Your task to perform on an android device: Add "usb-c to usb-b" to the cart on walmart.com, then select checkout. Image 0: 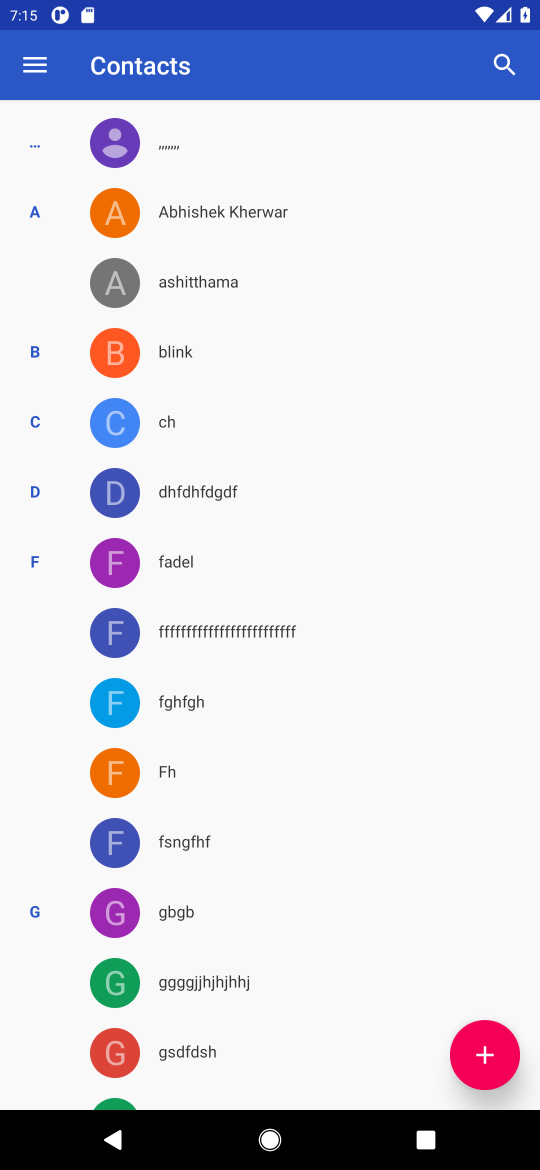
Step 0: press home button
Your task to perform on an android device: Add "usb-c to usb-b" to the cart on walmart.com, then select checkout. Image 1: 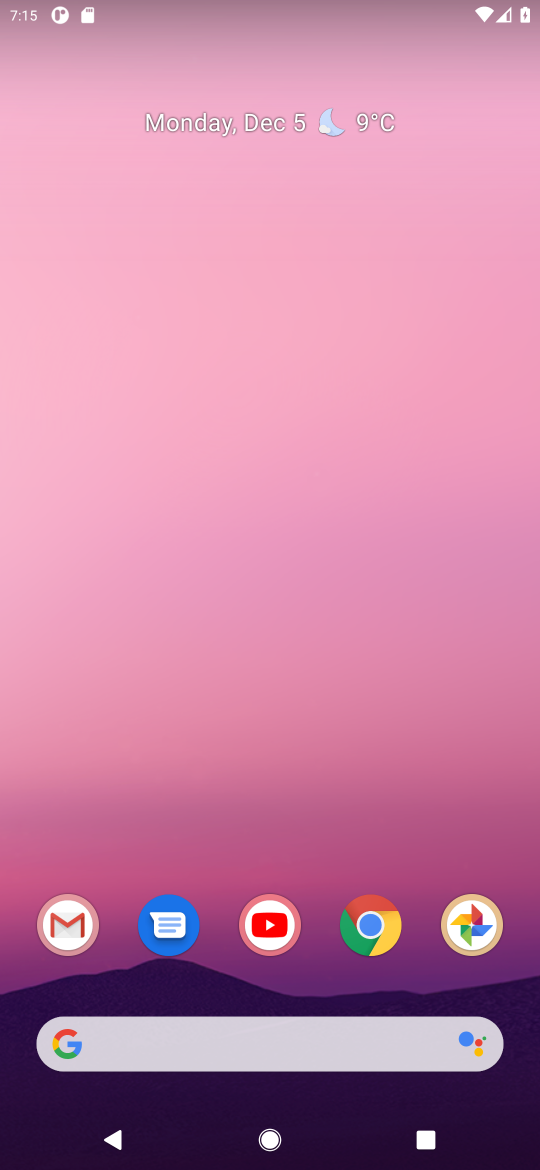
Step 1: click (379, 929)
Your task to perform on an android device: Add "usb-c to usb-b" to the cart on walmart.com, then select checkout. Image 2: 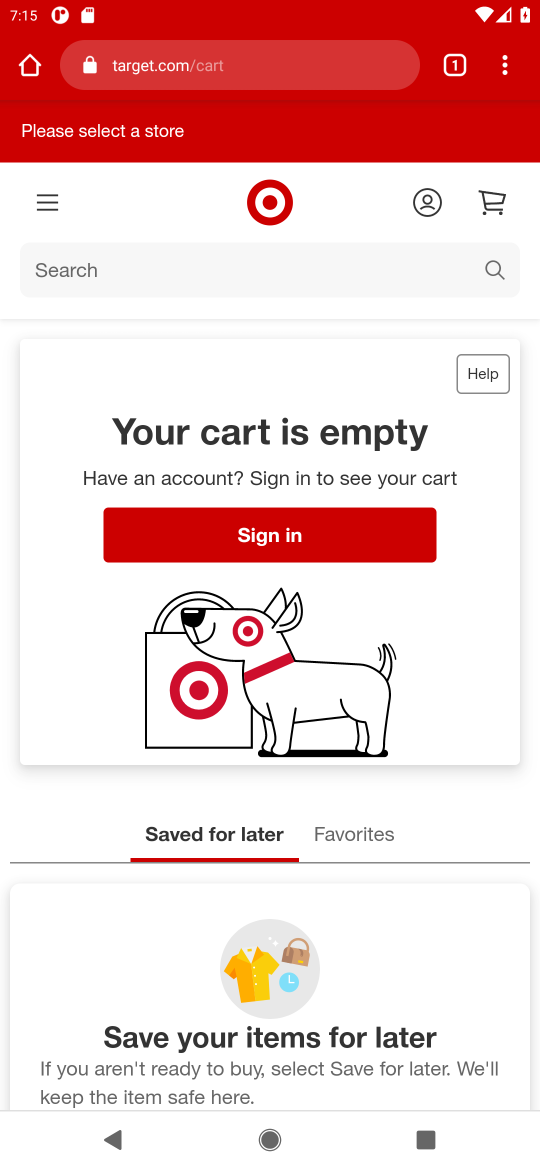
Step 2: click (171, 66)
Your task to perform on an android device: Add "usb-c to usb-b" to the cart on walmart.com, then select checkout. Image 3: 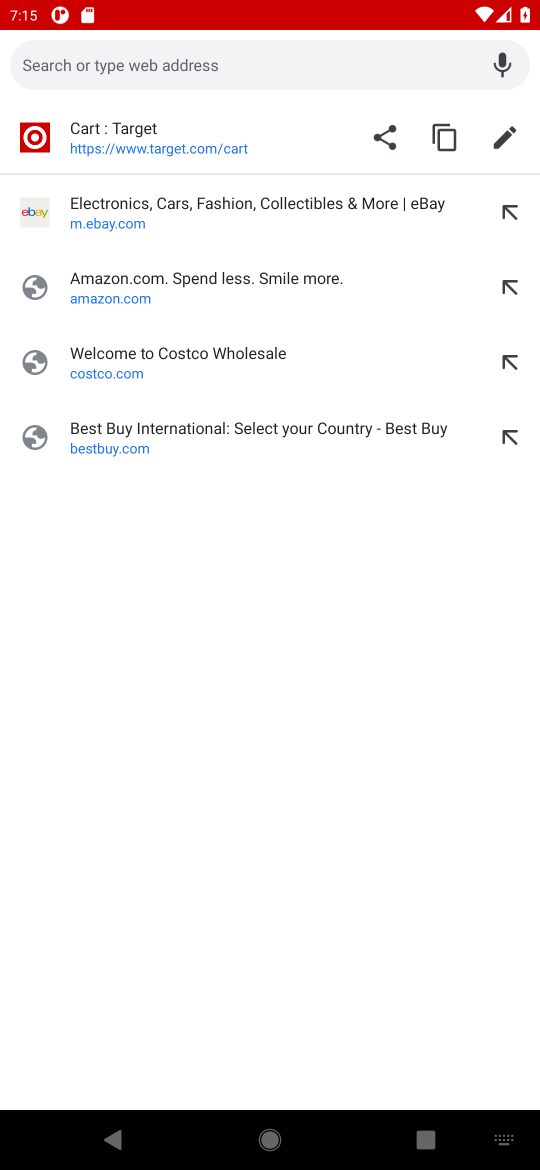
Step 3: type "walmart.com"
Your task to perform on an android device: Add "usb-c to usb-b" to the cart on walmart.com, then select checkout. Image 4: 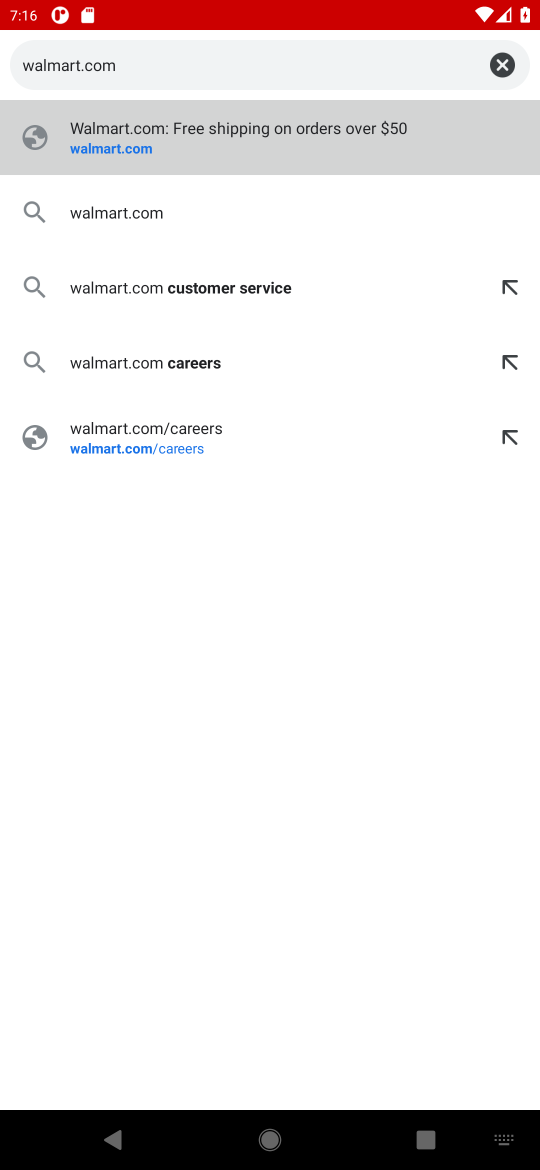
Step 4: click (104, 145)
Your task to perform on an android device: Add "usb-c to usb-b" to the cart on walmart.com, then select checkout. Image 5: 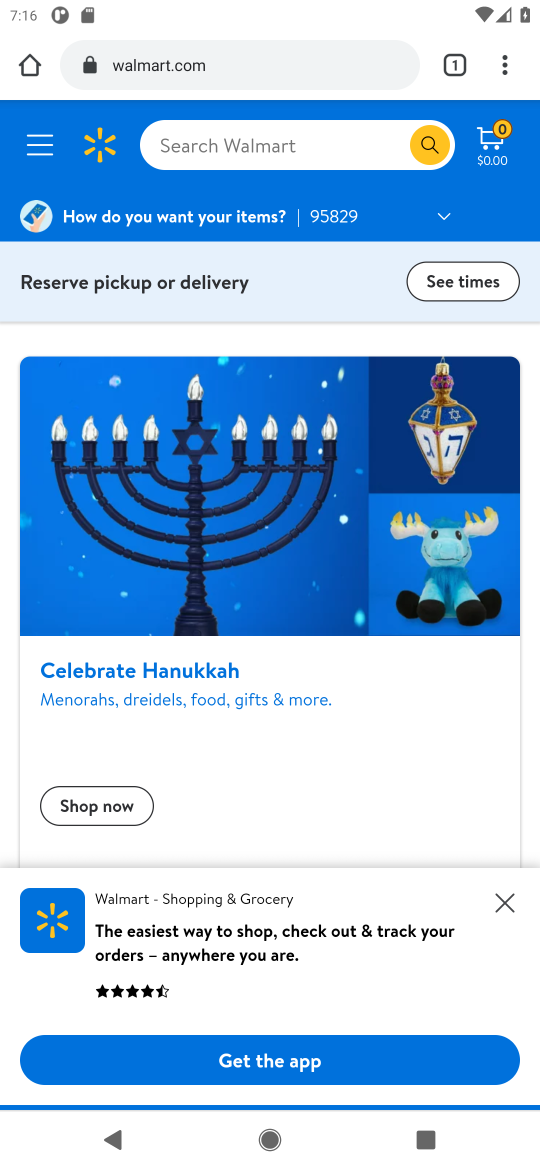
Step 5: click (221, 155)
Your task to perform on an android device: Add "usb-c to usb-b" to the cart on walmart.com, then select checkout. Image 6: 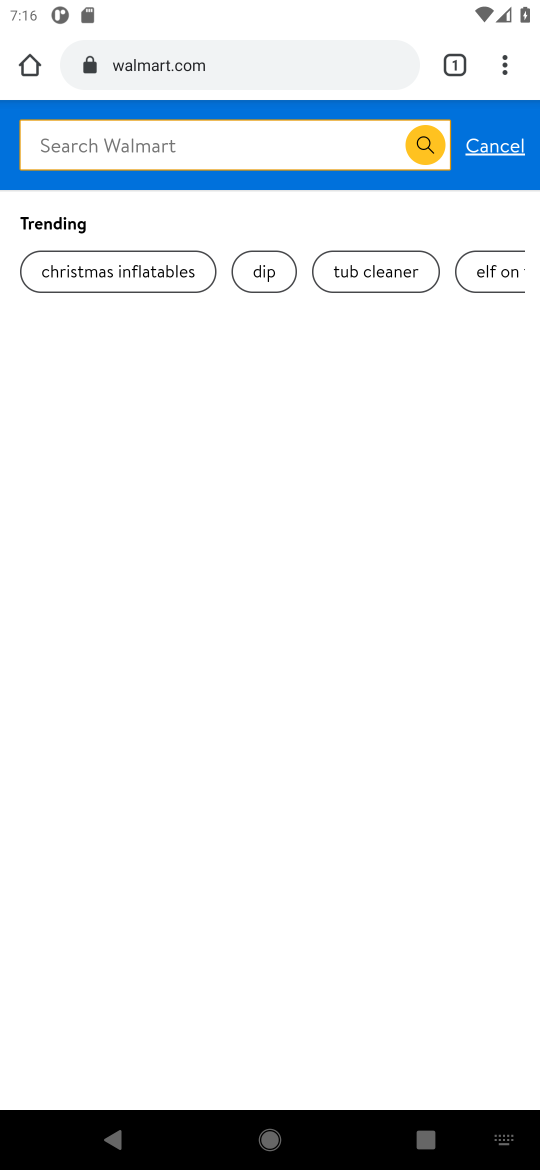
Step 6: type "usb-c to usb-b"
Your task to perform on an android device: Add "usb-c to usb-b" to the cart on walmart.com, then select checkout. Image 7: 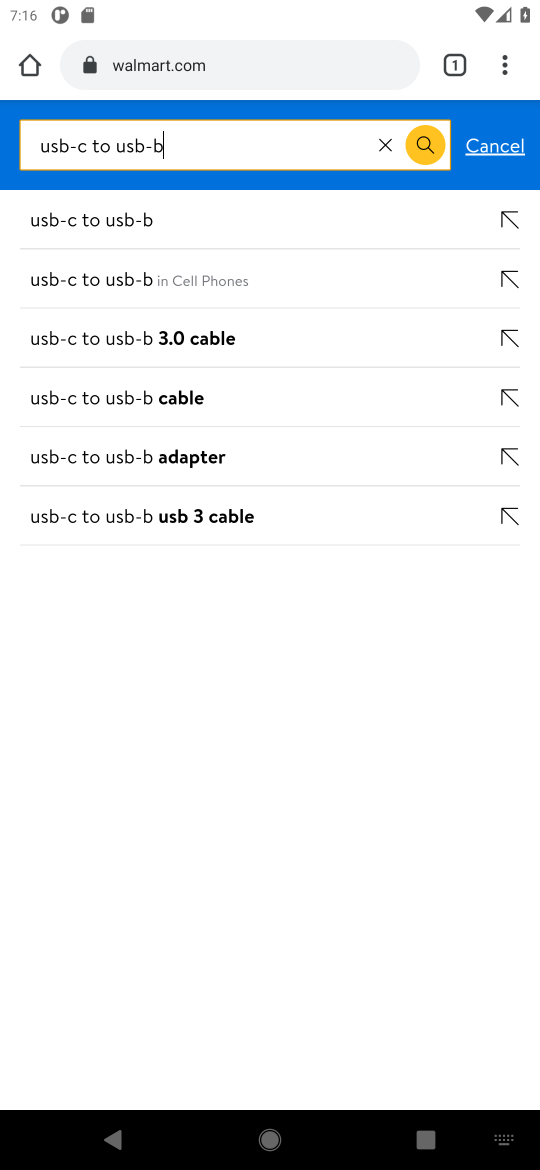
Step 7: click (110, 221)
Your task to perform on an android device: Add "usb-c to usb-b" to the cart on walmart.com, then select checkout. Image 8: 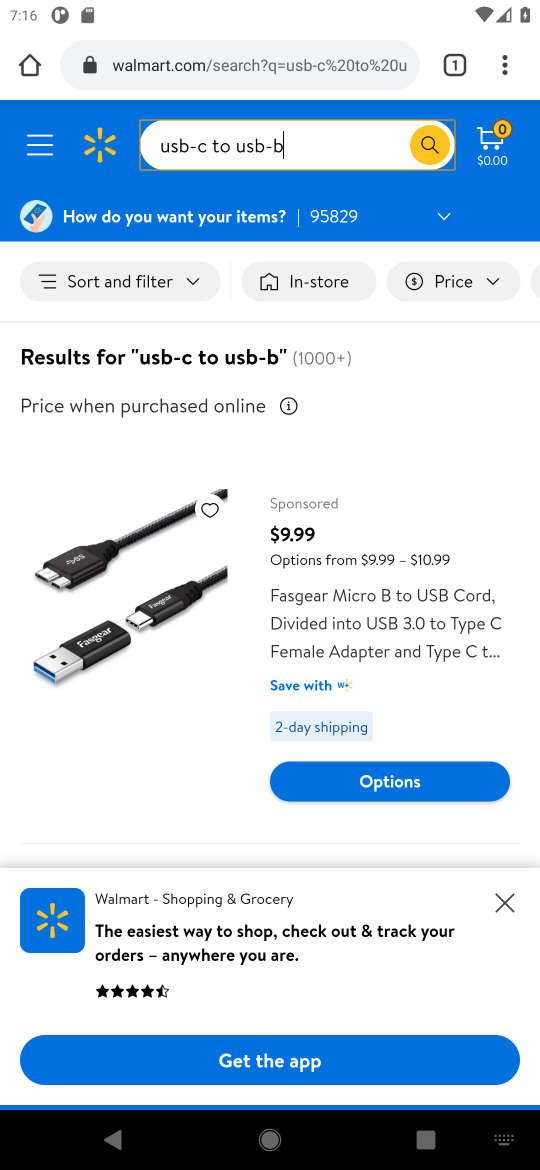
Step 8: drag from (205, 620) to (205, 445)
Your task to perform on an android device: Add "usb-c to usb-b" to the cart on walmart.com, then select checkout. Image 9: 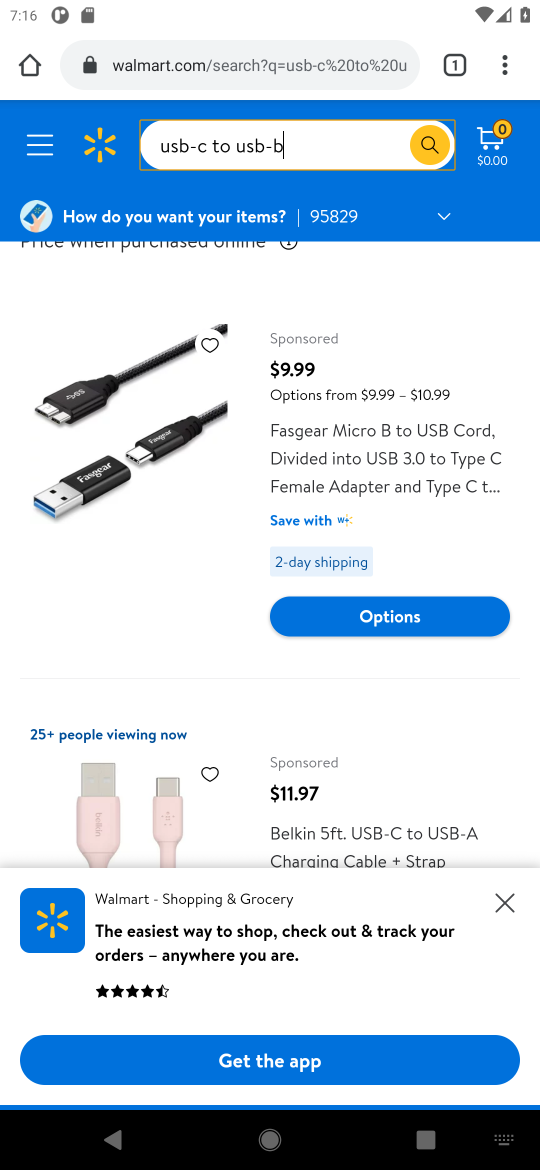
Step 9: drag from (200, 526) to (196, 315)
Your task to perform on an android device: Add "usb-c to usb-b" to the cart on walmart.com, then select checkout. Image 10: 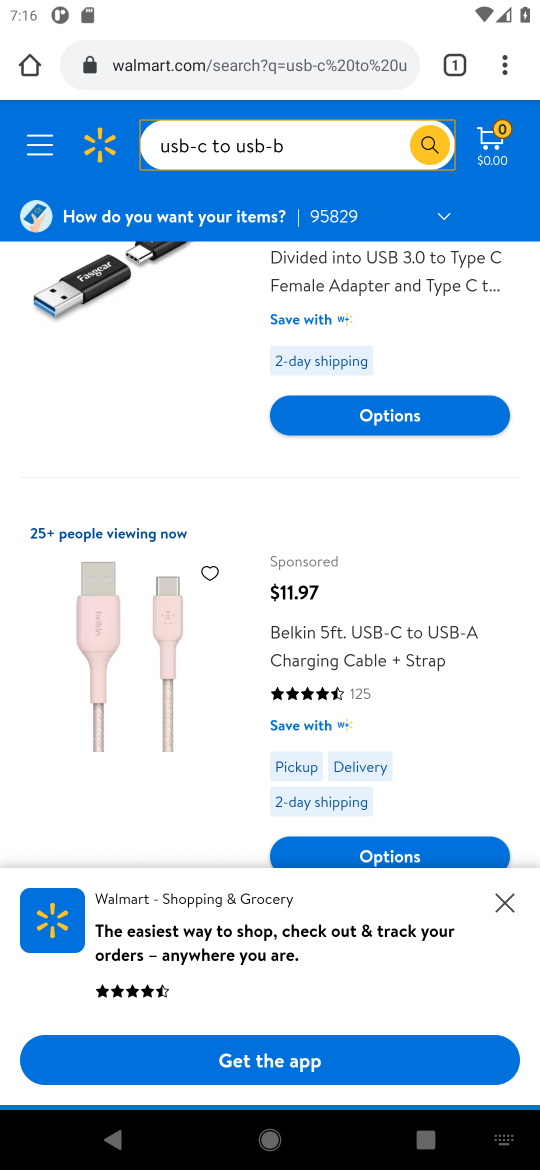
Step 10: drag from (300, 618) to (290, 430)
Your task to perform on an android device: Add "usb-c to usb-b" to the cart on walmart.com, then select checkout. Image 11: 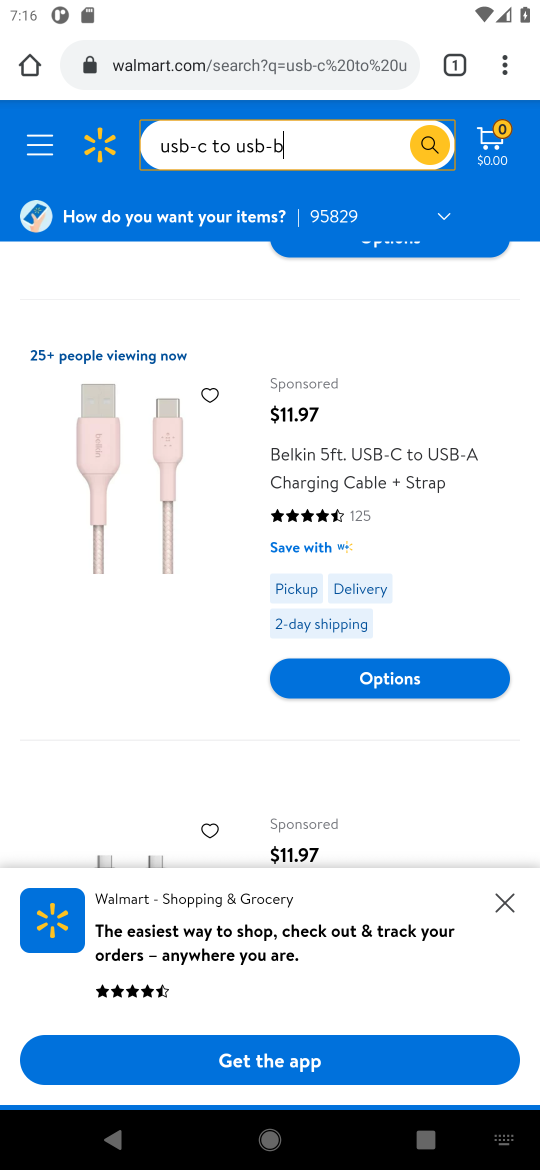
Step 11: click (333, 483)
Your task to perform on an android device: Add "usb-c to usb-b" to the cart on walmart.com, then select checkout. Image 12: 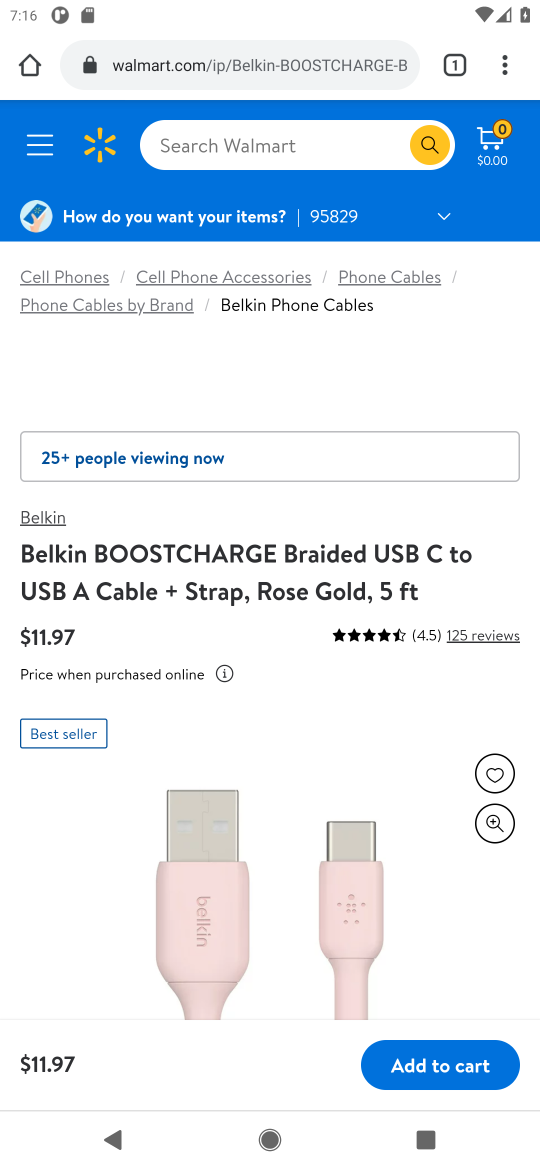
Step 12: press back button
Your task to perform on an android device: Add "usb-c to usb-b" to the cart on walmart.com, then select checkout. Image 13: 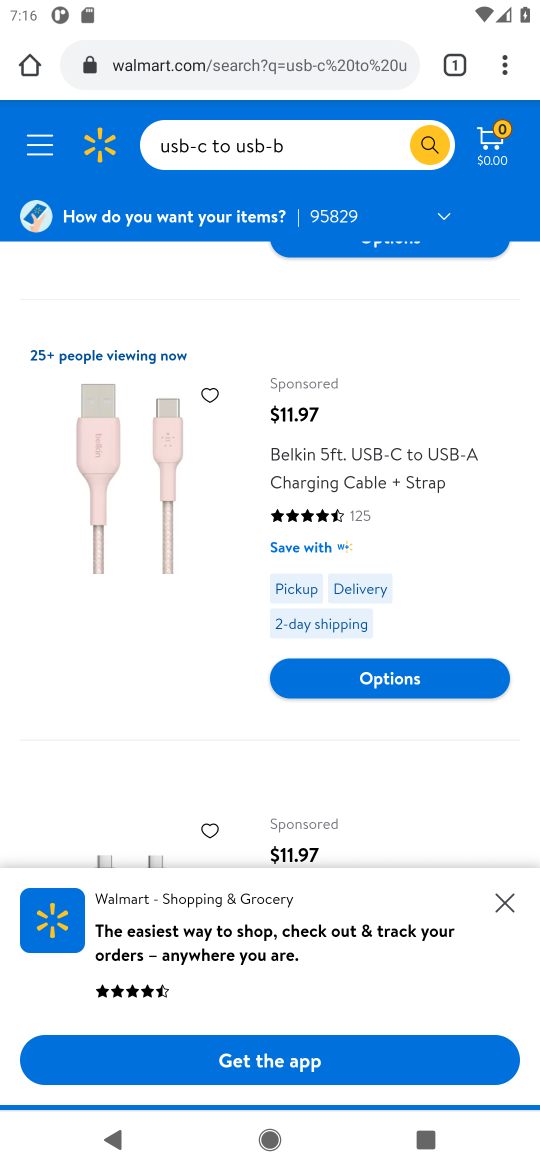
Step 13: drag from (173, 508) to (174, 729)
Your task to perform on an android device: Add "usb-c to usb-b" to the cart on walmart.com, then select checkout. Image 14: 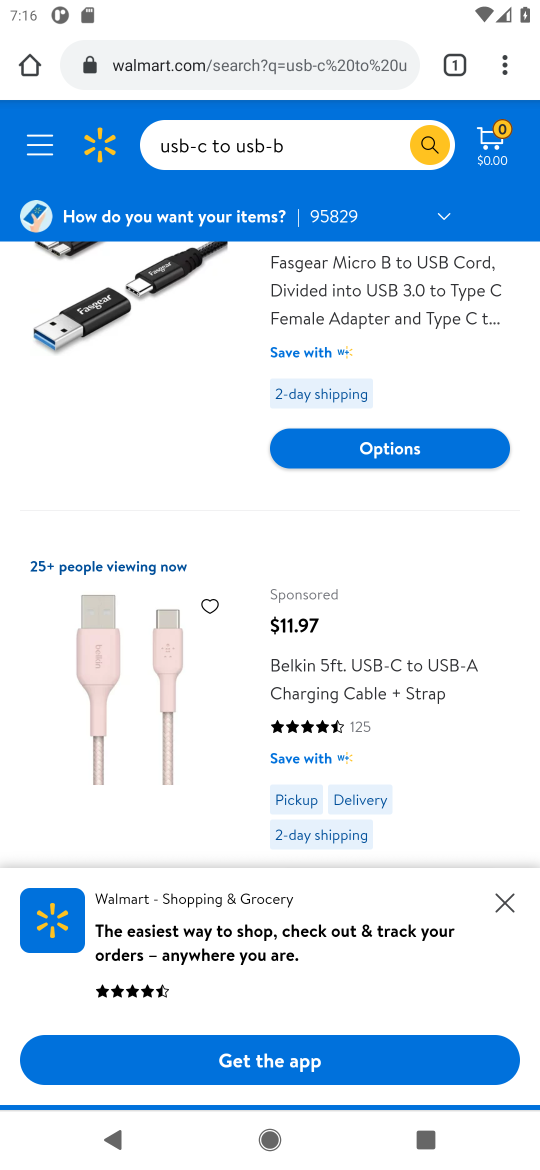
Step 14: drag from (157, 349) to (160, 593)
Your task to perform on an android device: Add "usb-c to usb-b" to the cart on walmart.com, then select checkout. Image 15: 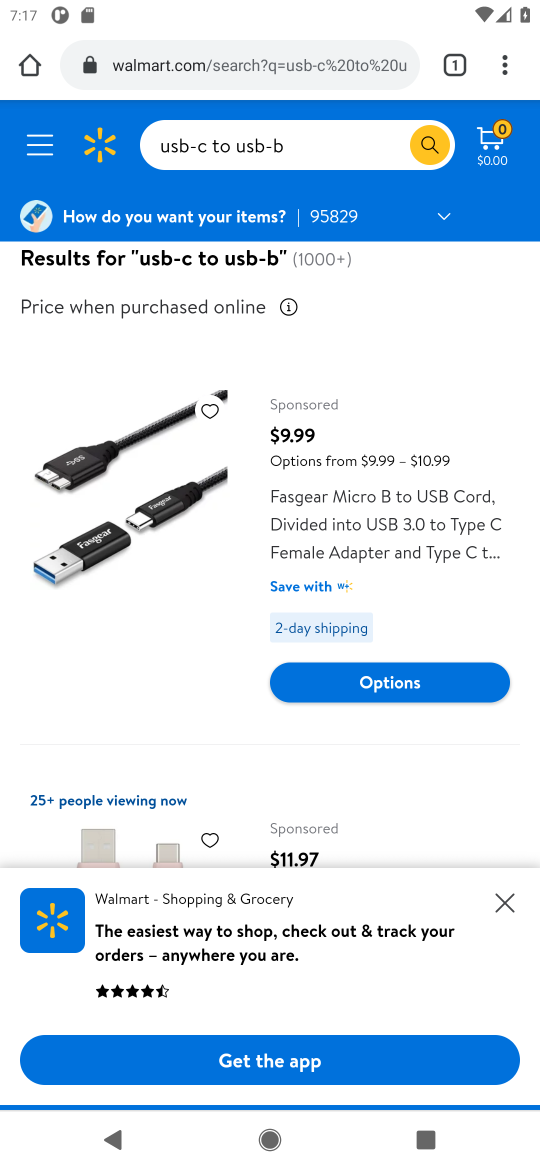
Step 15: click (321, 535)
Your task to perform on an android device: Add "usb-c to usb-b" to the cart on walmart.com, then select checkout. Image 16: 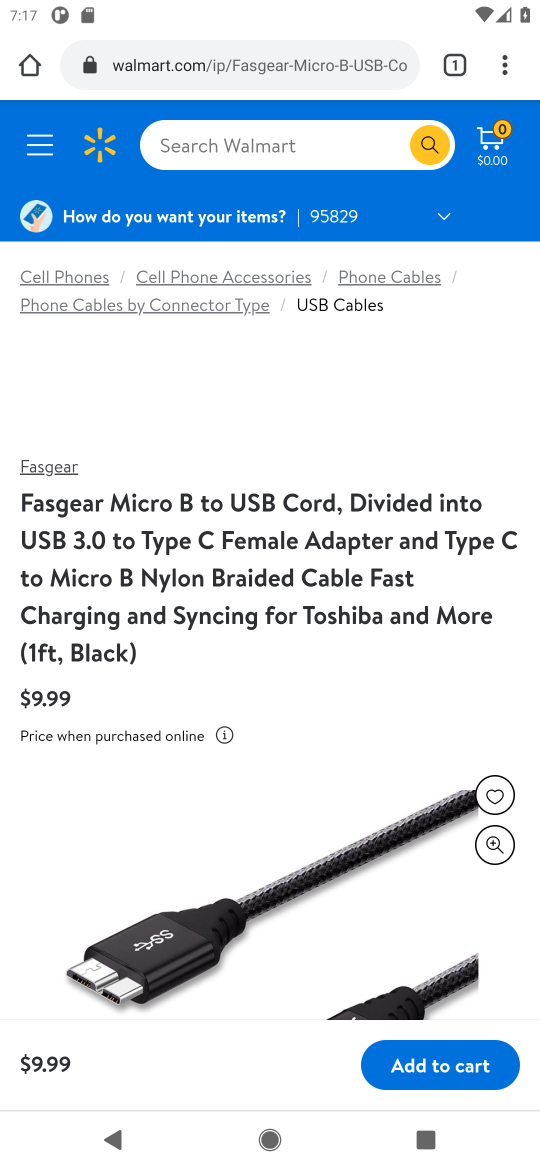
Step 16: press back button
Your task to perform on an android device: Add "usb-c to usb-b" to the cart on walmart.com, then select checkout. Image 17: 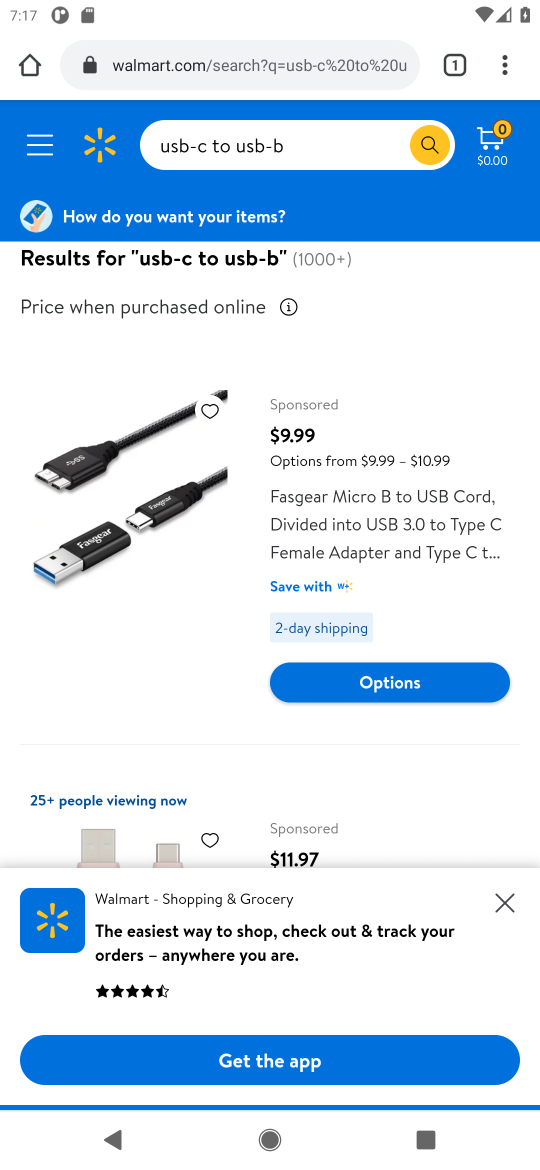
Step 17: drag from (232, 896) to (196, 393)
Your task to perform on an android device: Add "usb-c to usb-b" to the cart on walmart.com, then select checkout. Image 18: 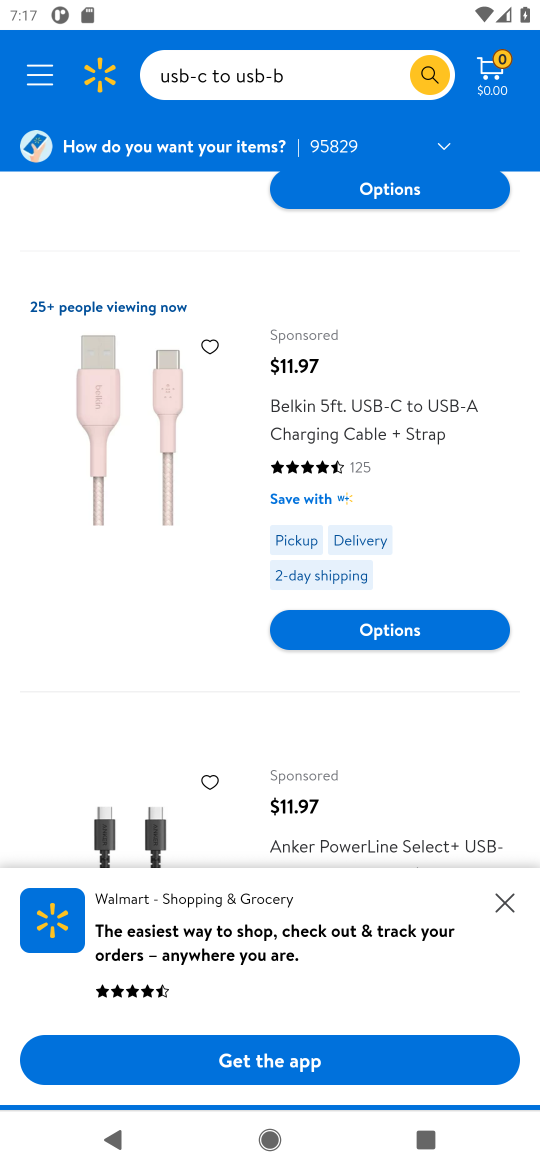
Step 18: drag from (194, 812) to (167, 350)
Your task to perform on an android device: Add "usb-c to usb-b" to the cart on walmart.com, then select checkout. Image 19: 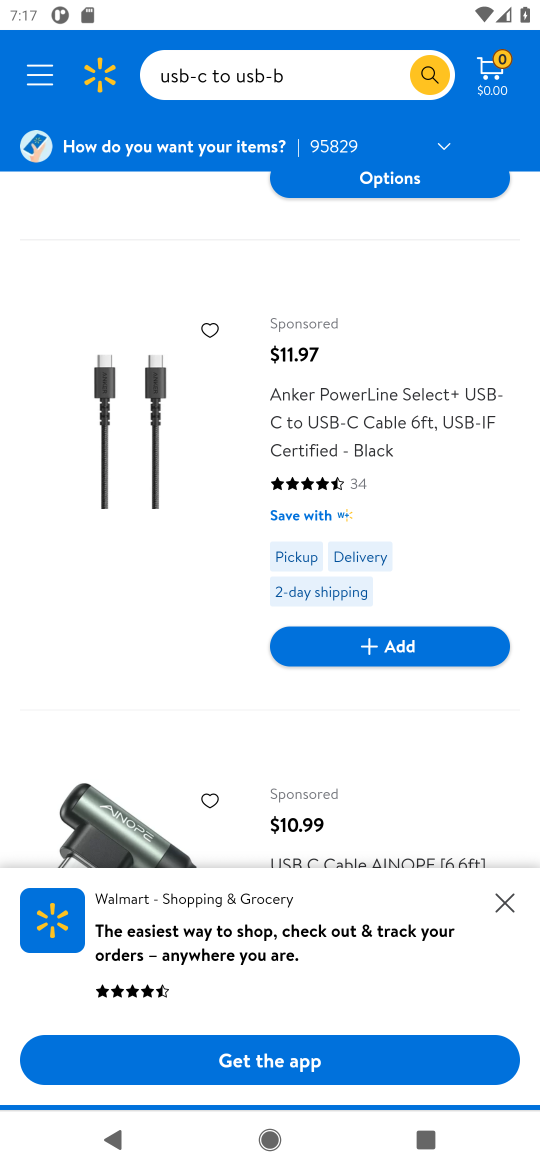
Step 19: drag from (139, 592) to (169, 256)
Your task to perform on an android device: Add "usb-c to usb-b" to the cart on walmart.com, then select checkout. Image 20: 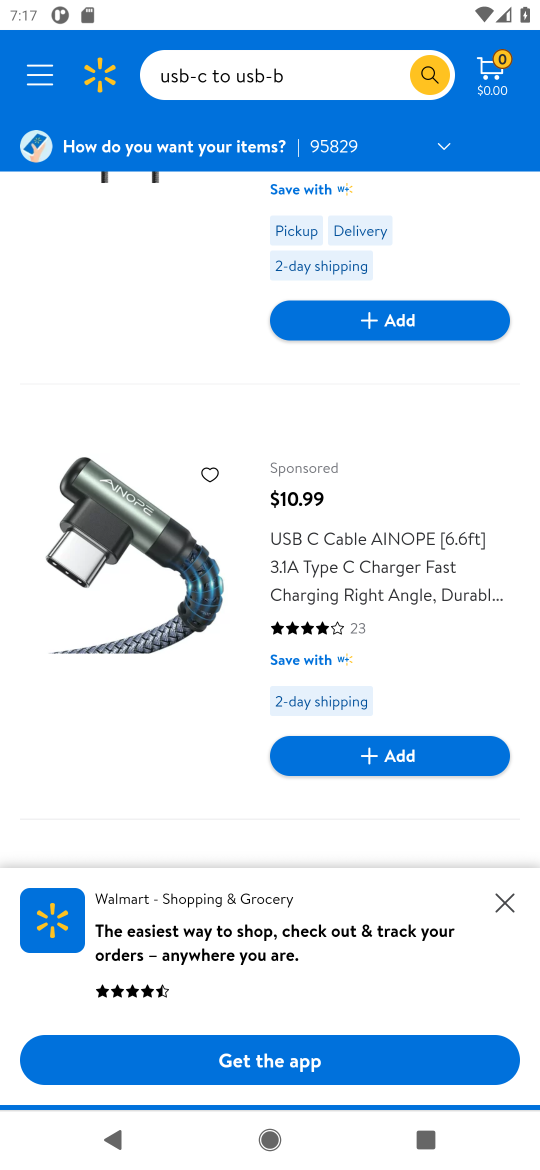
Step 20: drag from (149, 674) to (165, 338)
Your task to perform on an android device: Add "usb-c to usb-b" to the cart on walmart.com, then select checkout. Image 21: 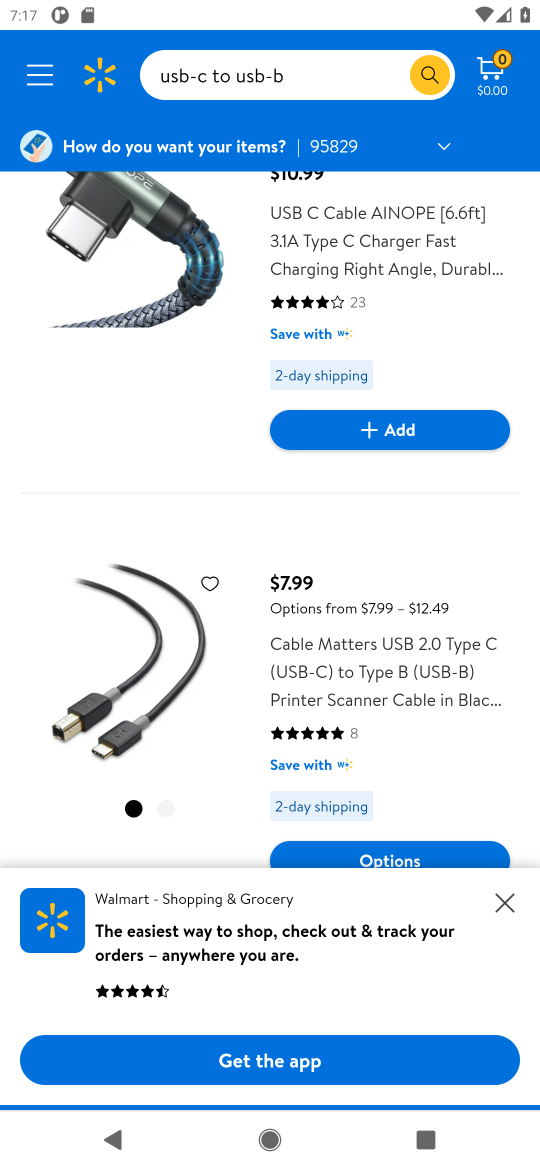
Step 21: drag from (186, 745) to (227, 517)
Your task to perform on an android device: Add "usb-c to usb-b" to the cart on walmart.com, then select checkout. Image 22: 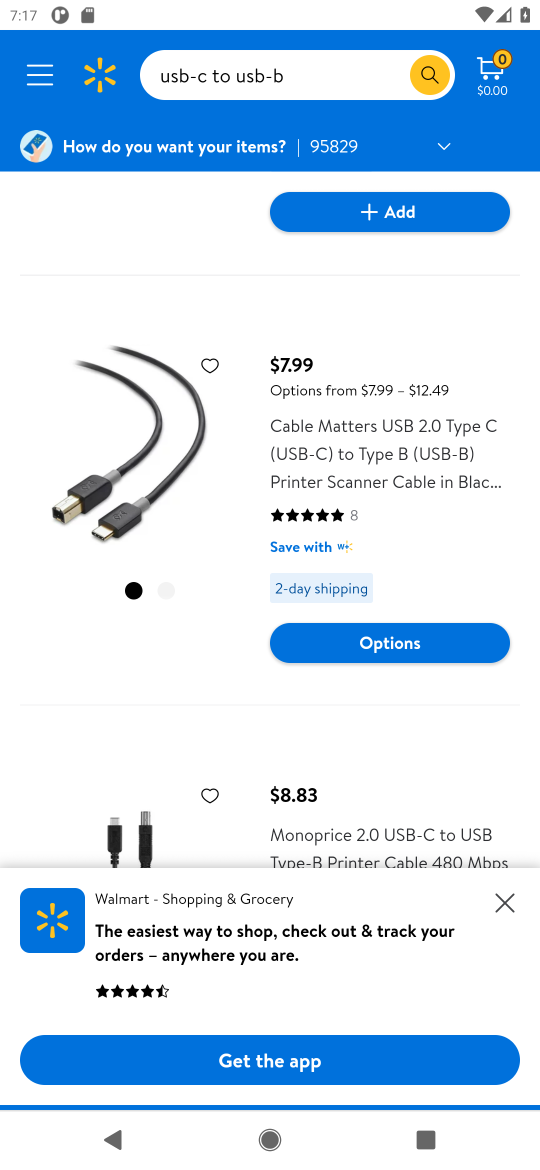
Step 22: click (381, 472)
Your task to perform on an android device: Add "usb-c to usb-b" to the cart on walmart.com, then select checkout. Image 23: 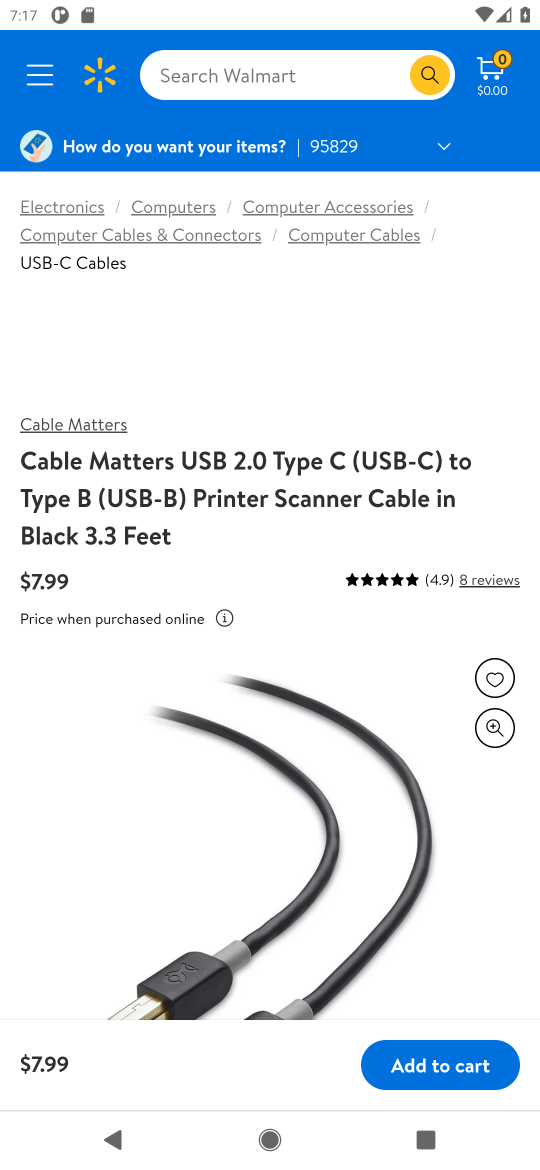
Step 23: click (425, 1073)
Your task to perform on an android device: Add "usb-c to usb-b" to the cart on walmart.com, then select checkout. Image 24: 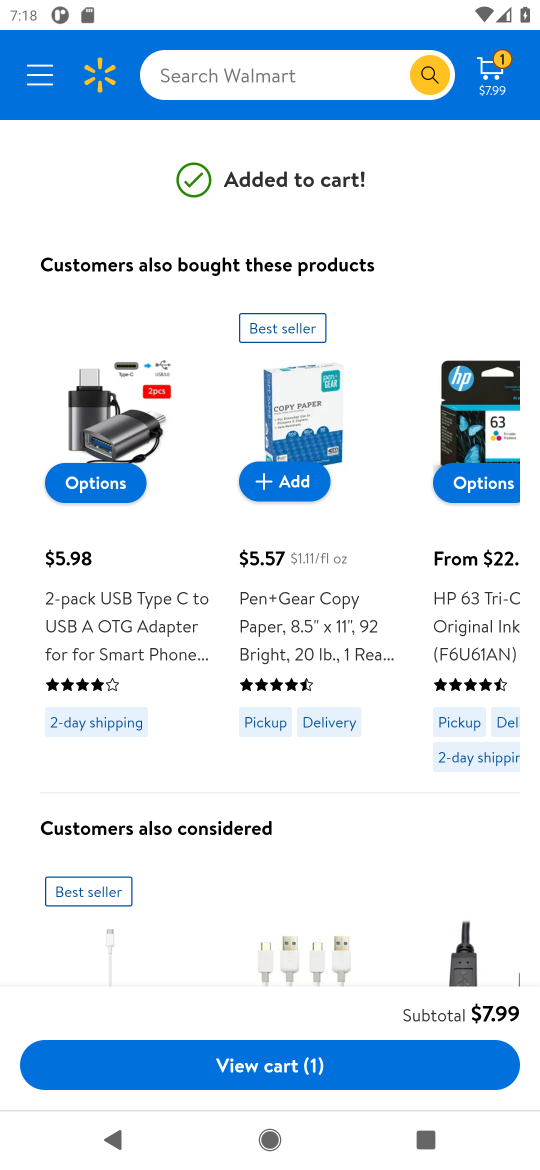
Step 24: click (225, 1055)
Your task to perform on an android device: Add "usb-c to usb-b" to the cart on walmart.com, then select checkout. Image 25: 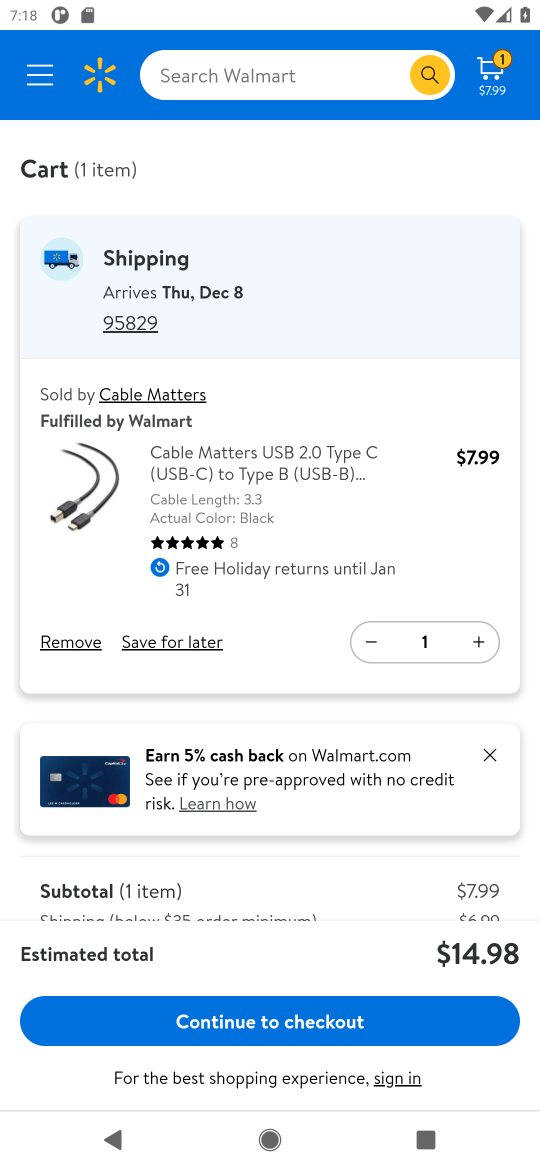
Step 25: click (234, 1030)
Your task to perform on an android device: Add "usb-c to usb-b" to the cart on walmart.com, then select checkout. Image 26: 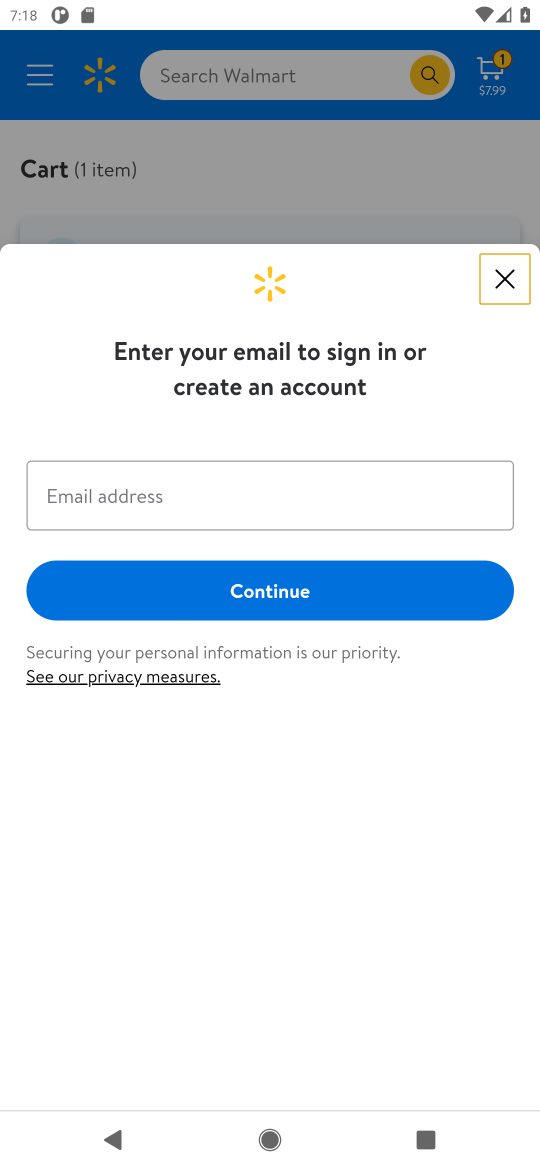
Step 26: task complete